Your task to perform on an android device: open app "YouTube Kids" (install if not already installed) and go to login screen Image 0: 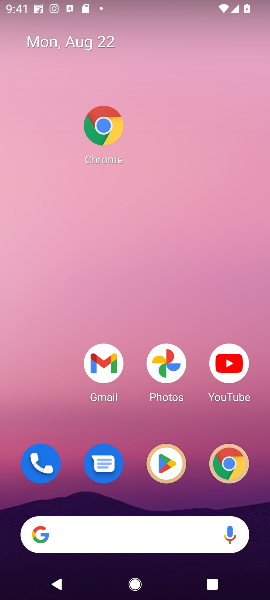
Step 0: click (166, 464)
Your task to perform on an android device: open app "YouTube Kids" (install if not already installed) and go to login screen Image 1: 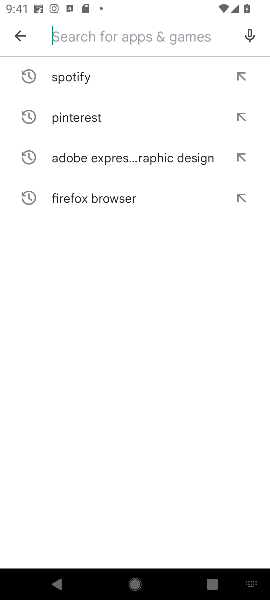
Step 1: click (19, 35)
Your task to perform on an android device: open app "YouTube Kids" (install if not already installed) and go to login screen Image 2: 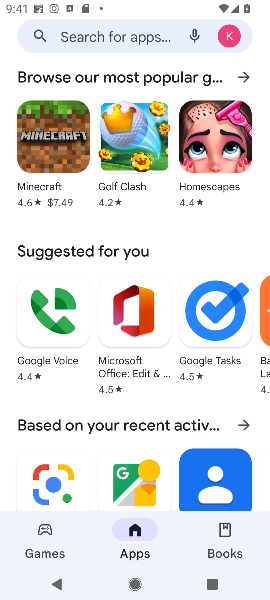
Step 2: click (126, 42)
Your task to perform on an android device: open app "YouTube Kids" (install if not already installed) and go to login screen Image 3: 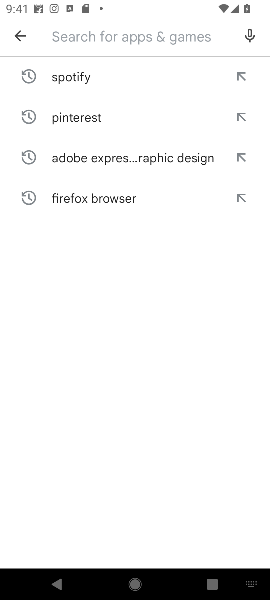
Step 3: type "YouTube Kids"
Your task to perform on an android device: open app "YouTube Kids" (install if not already installed) and go to login screen Image 4: 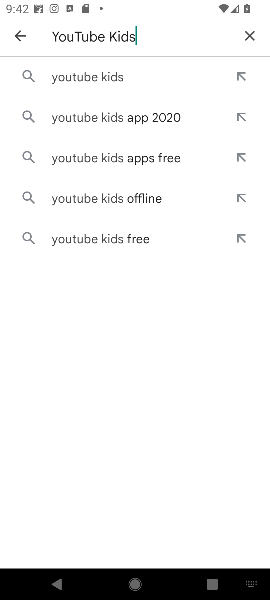
Step 4: click (85, 72)
Your task to perform on an android device: open app "YouTube Kids" (install if not already installed) and go to login screen Image 5: 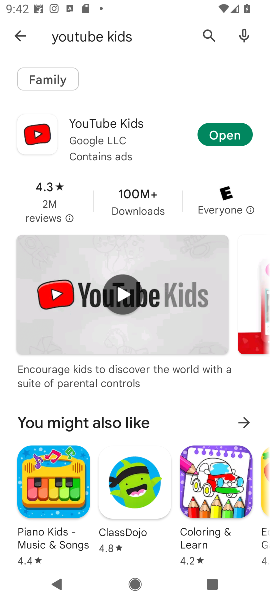
Step 5: click (222, 136)
Your task to perform on an android device: open app "YouTube Kids" (install if not already installed) and go to login screen Image 6: 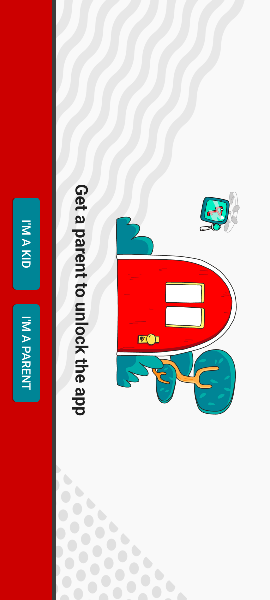
Step 6: task complete